Your task to perform on an android device: Is it going to rain tomorrow? Image 0: 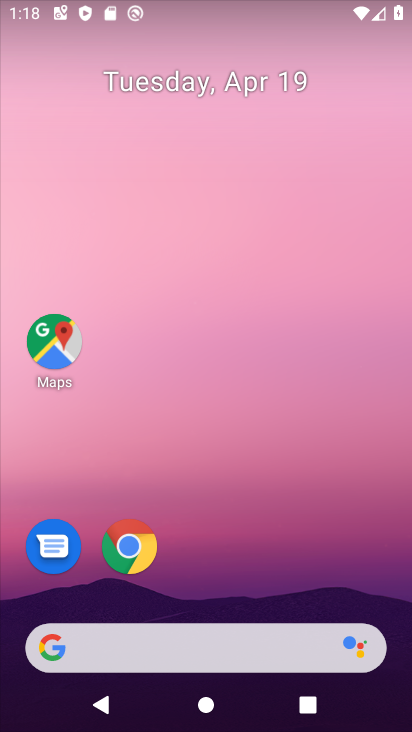
Step 0: click (339, 77)
Your task to perform on an android device: Is it going to rain tomorrow? Image 1: 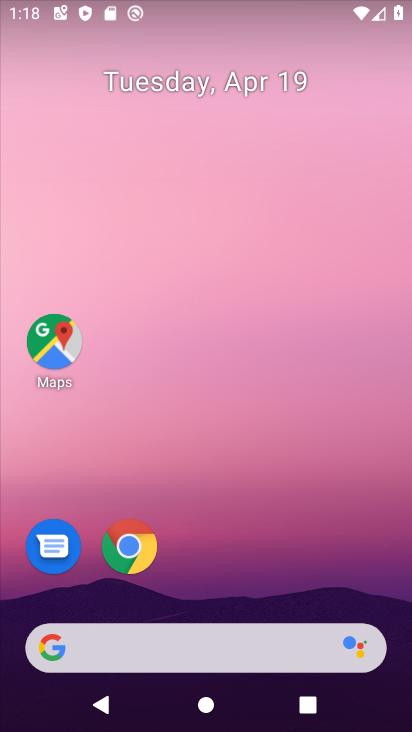
Step 1: click (179, 637)
Your task to perform on an android device: Is it going to rain tomorrow? Image 2: 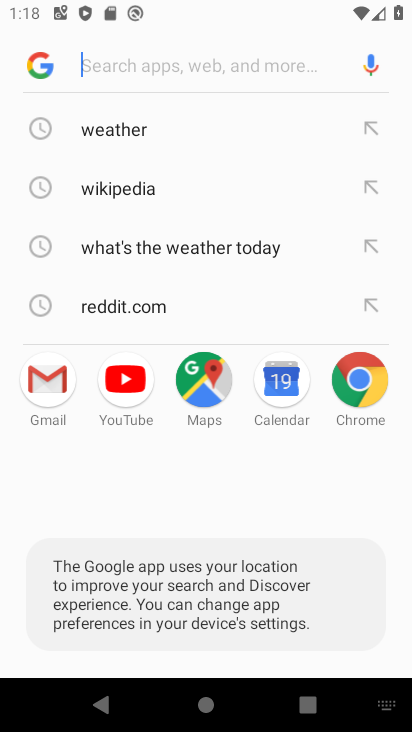
Step 2: click (147, 135)
Your task to perform on an android device: Is it going to rain tomorrow? Image 3: 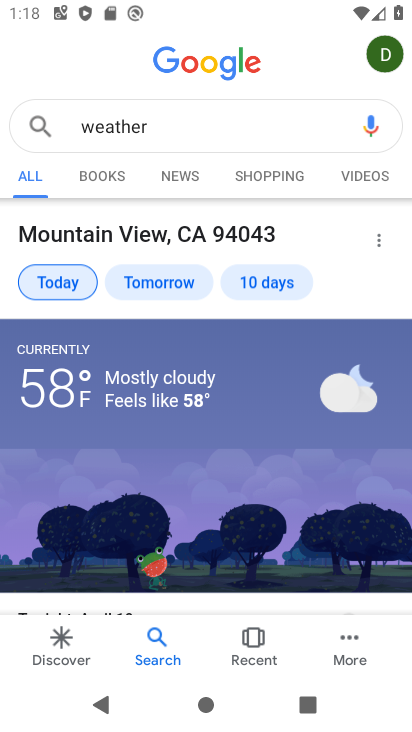
Step 3: click (137, 284)
Your task to perform on an android device: Is it going to rain tomorrow? Image 4: 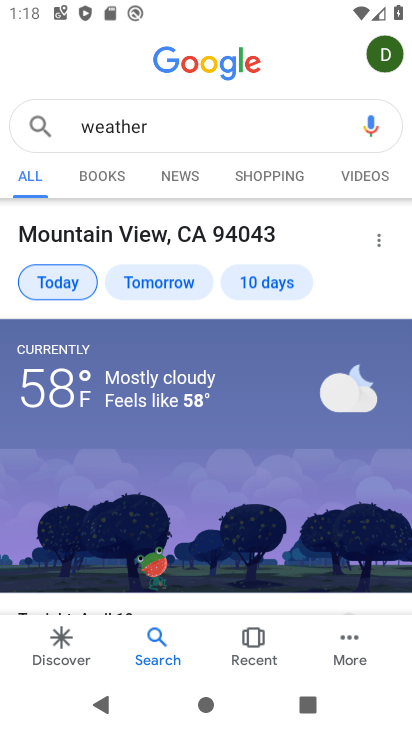
Step 4: drag from (170, 544) to (212, 290)
Your task to perform on an android device: Is it going to rain tomorrow? Image 5: 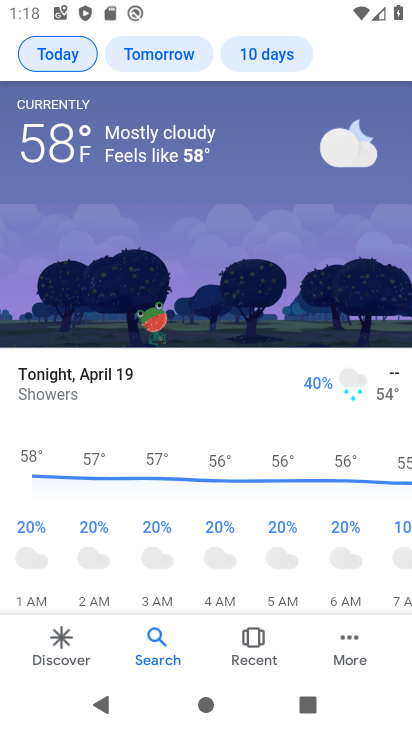
Step 5: drag from (193, 250) to (201, 529)
Your task to perform on an android device: Is it going to rain tomorrow? Image 6: 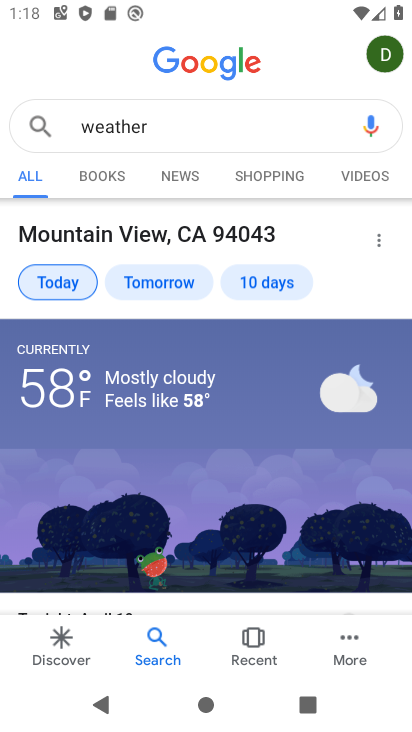
Step 6: click (157, 289)
Your task to perform on an android device: Is it going to rain tomorrow? Image 7: 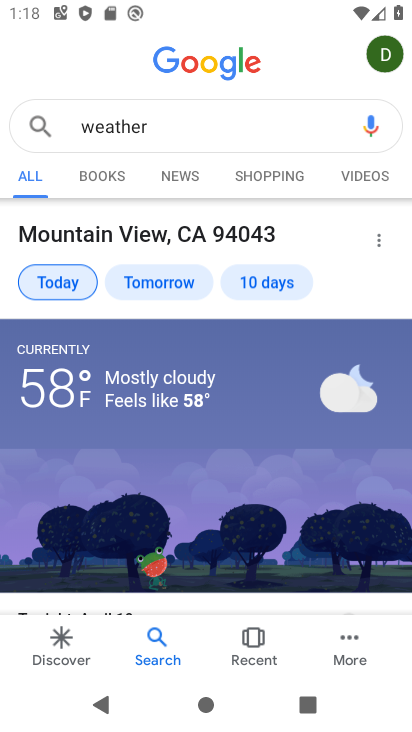
Step 7: click (155, 284)
Your task to perform on an android device: Is it going to rain tomorrow? Image 8: 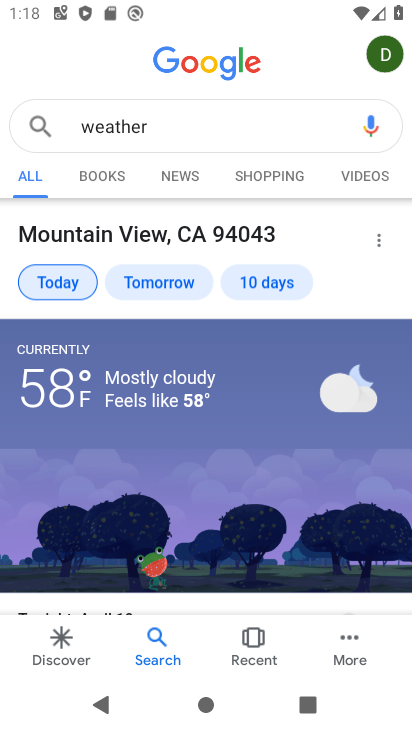
Step 8: drag from (185, 460) to (225, 43)
Your task to perform on an android device: Is it going to rain tomorrow? Image 9: 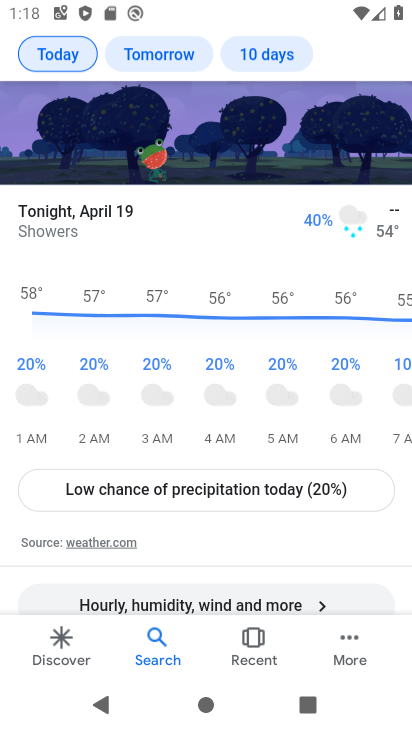
Step 9: drag from (171, 484) to (218, 76)
Your task to perform on an android device: Is it going to rain tomorrow? Image 10: 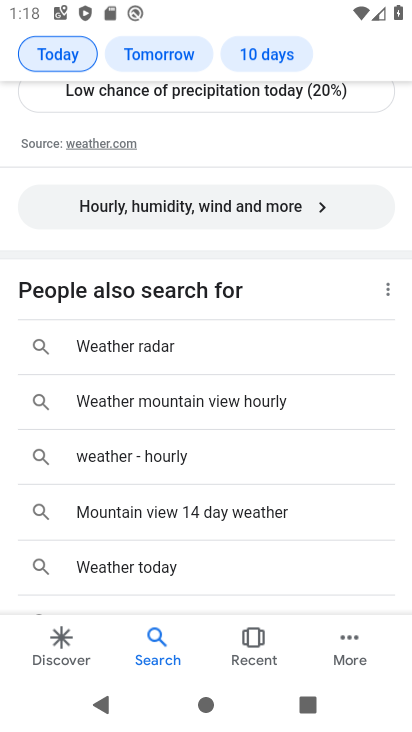
Step 10: click (170, 59)
Your task to perform on an android device: Is it going to rain tomorrow? Image 11: 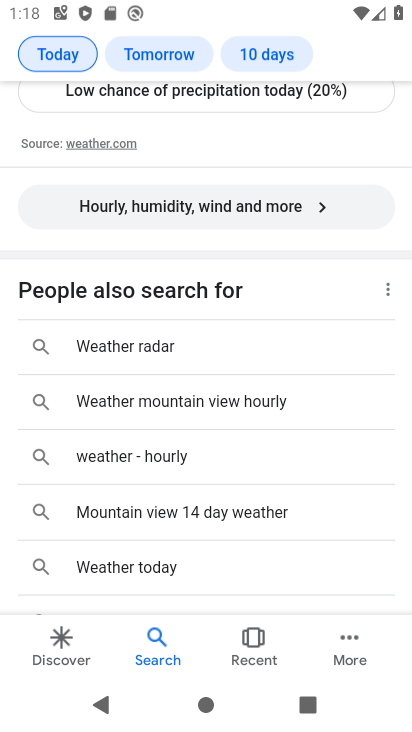
Step 11: task complete